Your task to perform on an android device: delete location history Image 0: 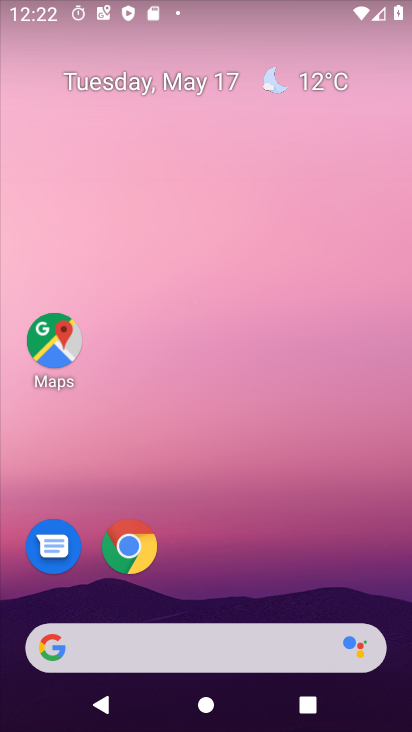
Step 0: drag from (234, 655) to (340, 66)
Your task to perform on an android device: delete location history Image 1: 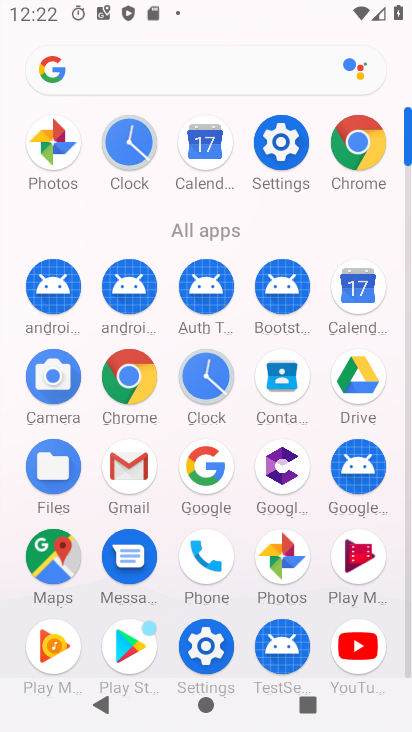
Step 1: click (64, 564)
Your task to perform on an android device: delete location history Image 2: 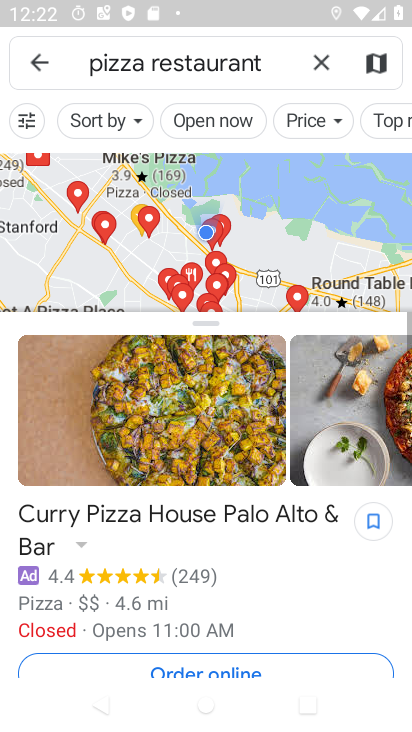
Step 2: click (37, 64)
Your task to perform on an android device: delete location history Image 3: 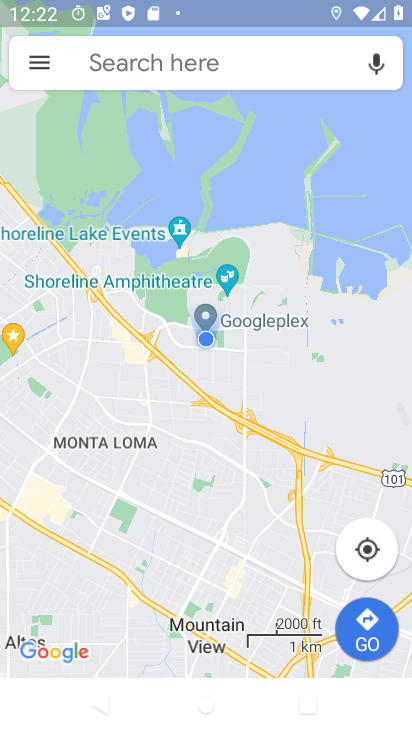
Step 3: click (43, 61)
Your task to perform on an android device: delete location history Image 4: 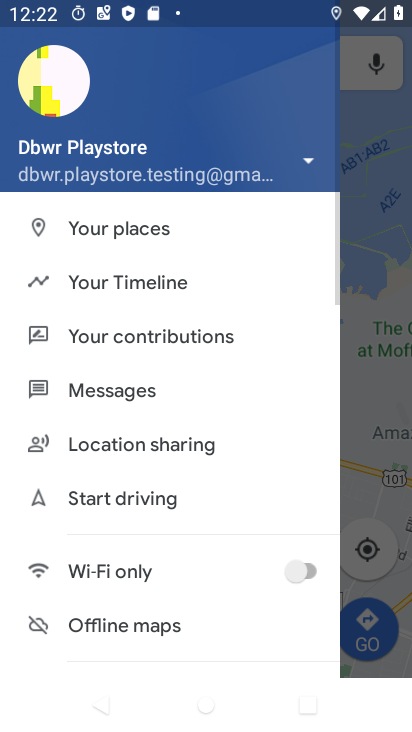
Step 4: click (138, 283)
Your task to perform on an android device: delete location history Image 5: 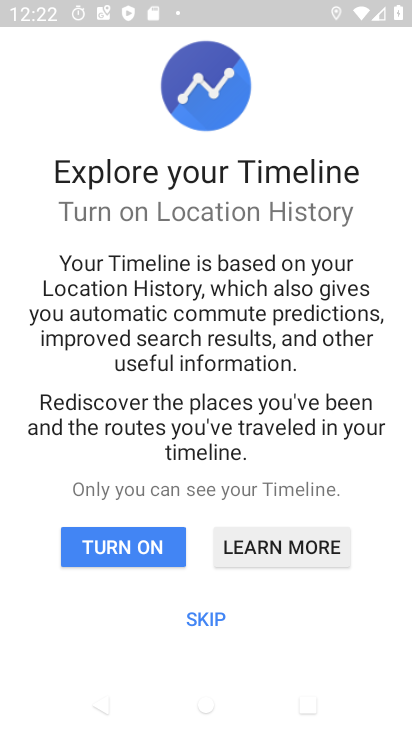
Step 5: click (201, 622)
Your task to perform on an android device: delete location history Image 6: 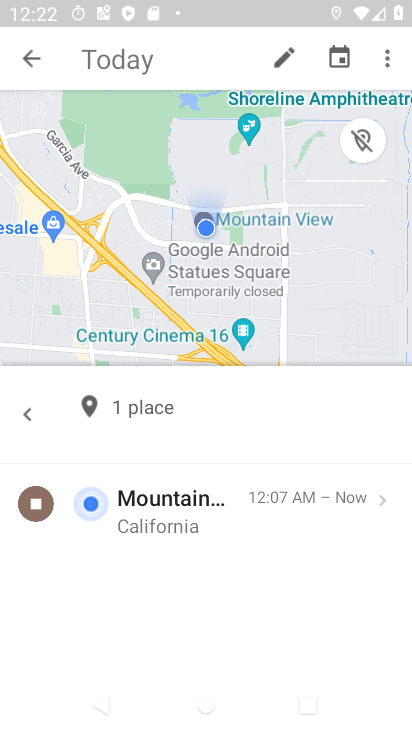
Step 6: click (384, 64)
Your task to perform on an android device: delete location history Image 7: 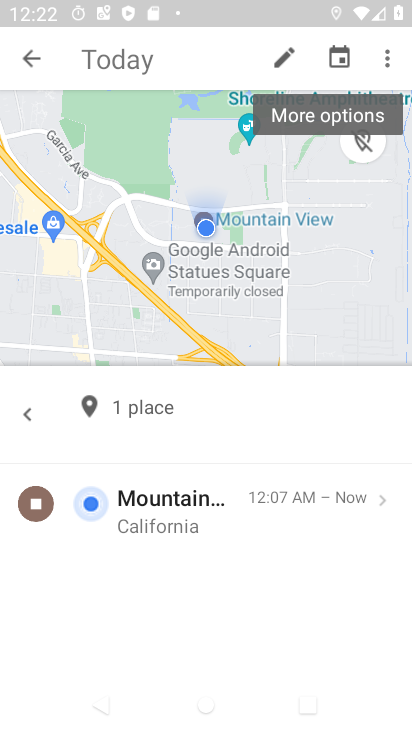
Step 7: click (386, 57)
Your task to perform on an android device: delete location history Image 8: 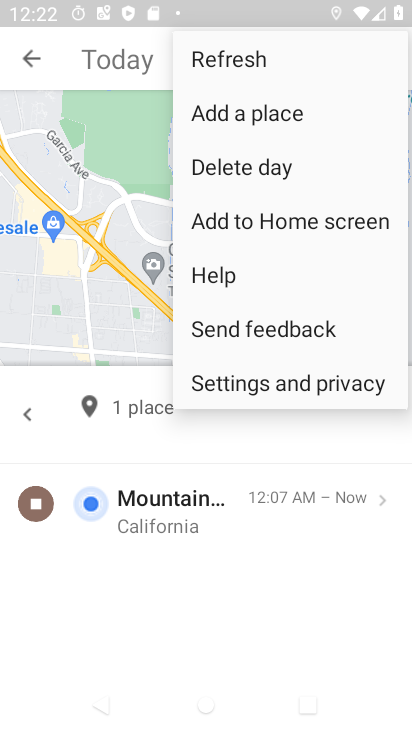
Step 8: click (282, 373)
Your task to perform on an android device: delete location history Image 9: 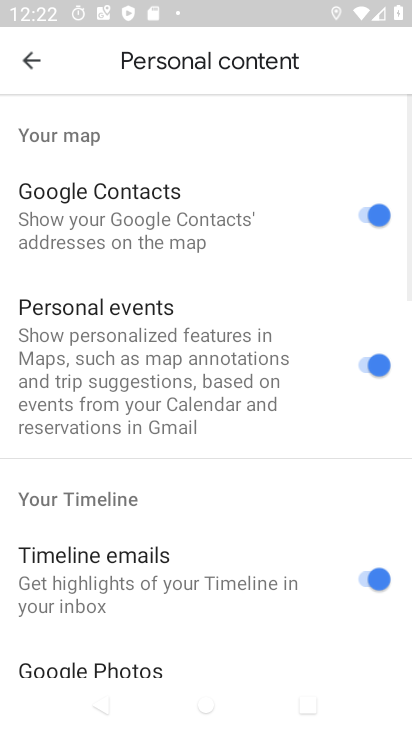
Step 9: drag from (171, 659) to (331, 40)
Your task to perform on an android device: delete location history Image 10: 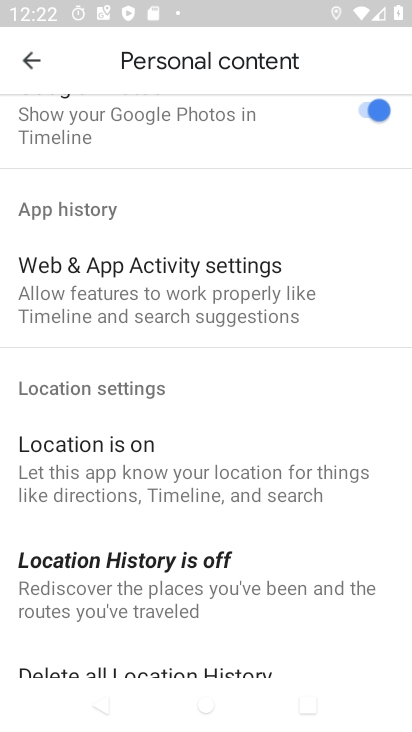
Step 10: drag from (213, 545) to (391, 22)
Your task to perform on an android device: delete location history Image 11: 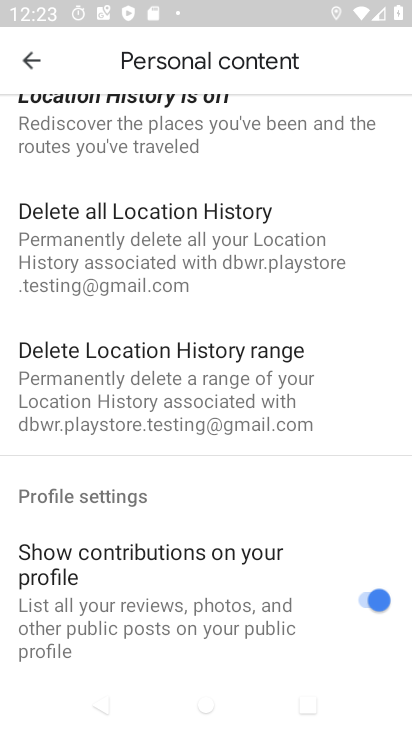
Step 11: click (167, 234)
Your task to perform on an android device: delete location history Image 12: 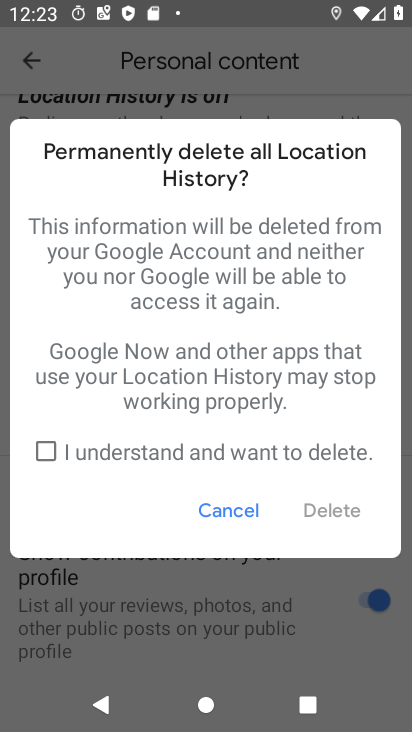
Step 12: click (41, 448)
Your task to perform on an android device: delete location history Image 13: 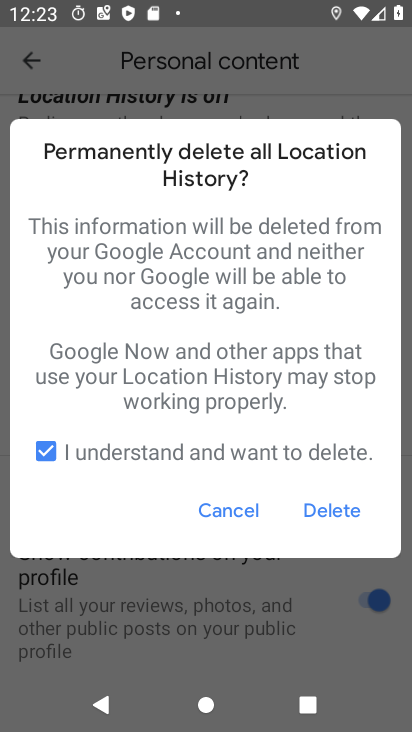
Step 13: click (335, 511)
Your task to perform on an android device: delete location history Image 14: 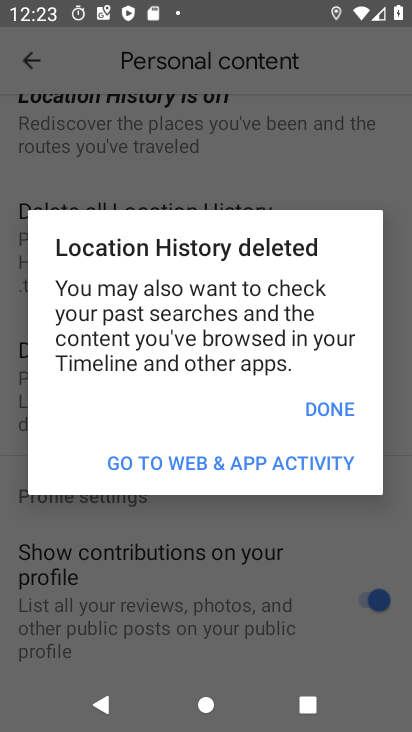
Step 14: click (333, 410)
Your task to perform on an android device: delete location history Image 15: 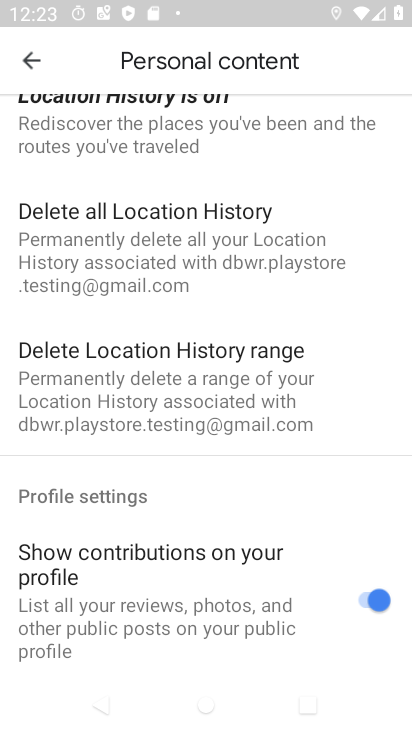
Step 15: task complete